Your task to perform on an android device: change notifications settings Image 0: 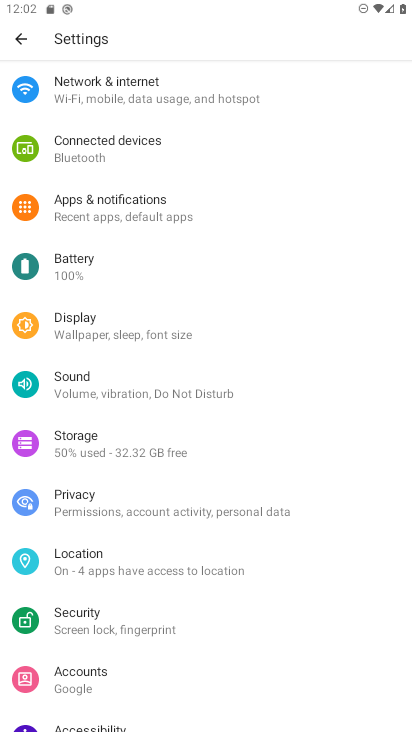
Step 0: click (185, 203)
Your task to perform on an android device: change notifications settings Image 1: 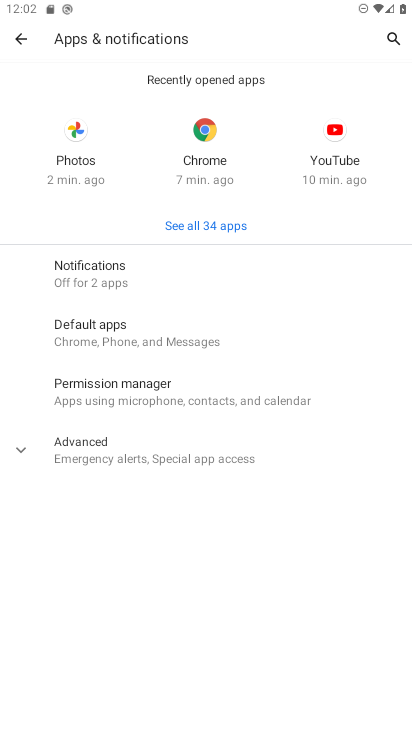
Step 1: click (111, 272)
Your task to perform on an android device: change notifications settings Image 2: 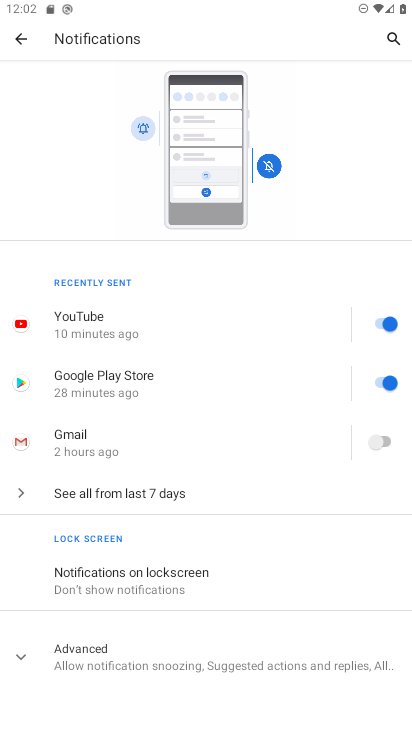
Step 2: click (391, 318)
Your task to perform on an android device: change notifications settings Image 3: 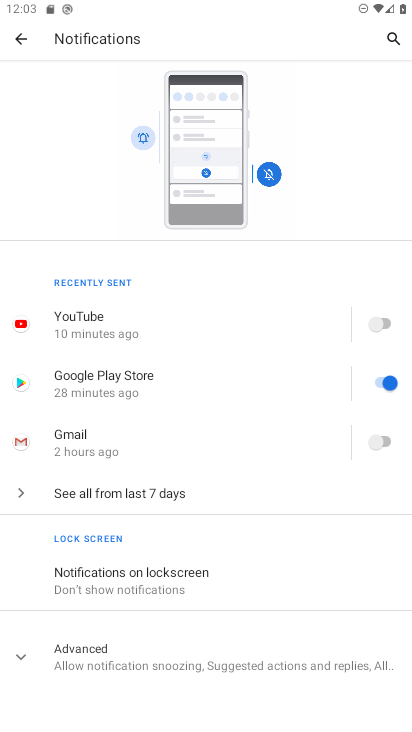
Step 3: task complete